Your task to perform on an android device: clear all cookies in the chrome app Image 0: 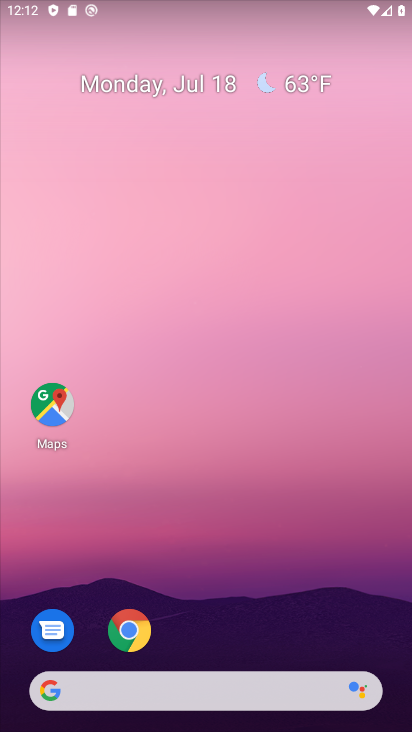
Step 0: drag from (174, 657) to (167, 0)
Your task to perform on an android device: clear all cookies in the chrome app Image 1: 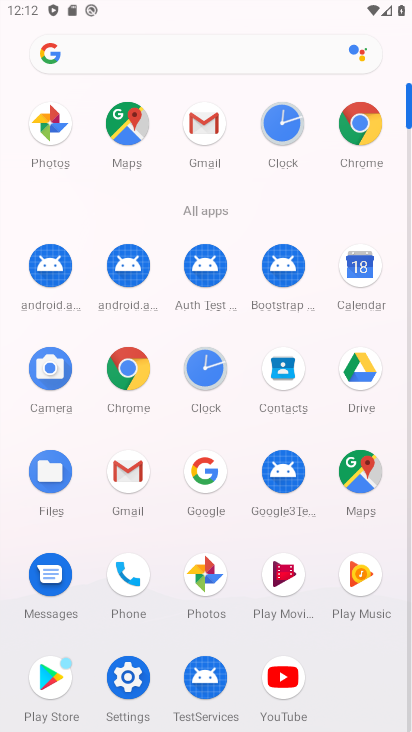
Step 1: click (133, 365)
Your task to perform on an android device: clear all cookies in the chrome app Image 2: 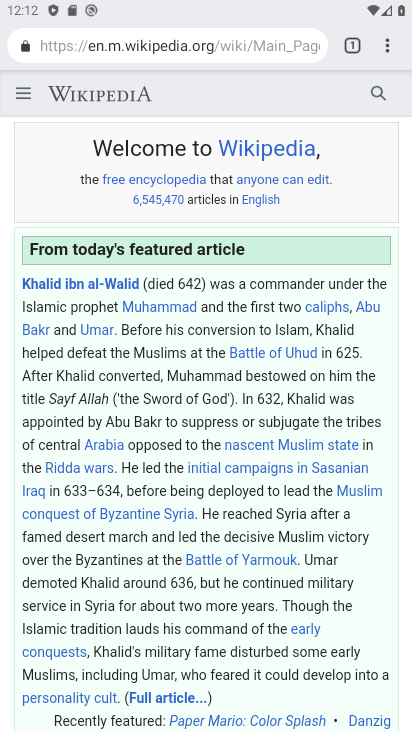
Step 2: click (393, 54)
Your task to perform on an android device: clear all cookies in the chrome app Image 3: 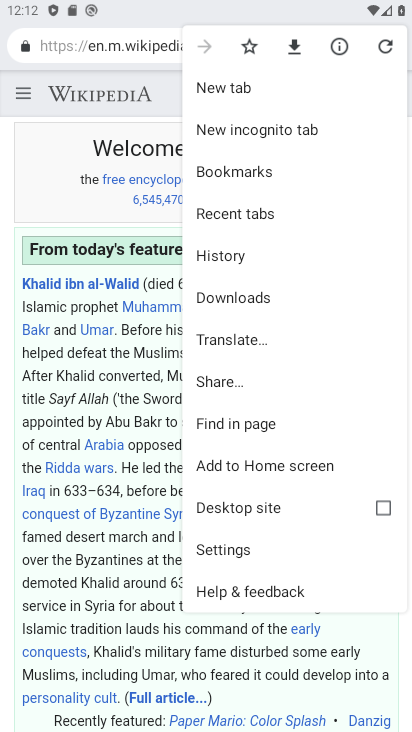
Step 3: click (233, 250)
Your task to perform on an android device: clear all cookies in the chrome app Image 4: 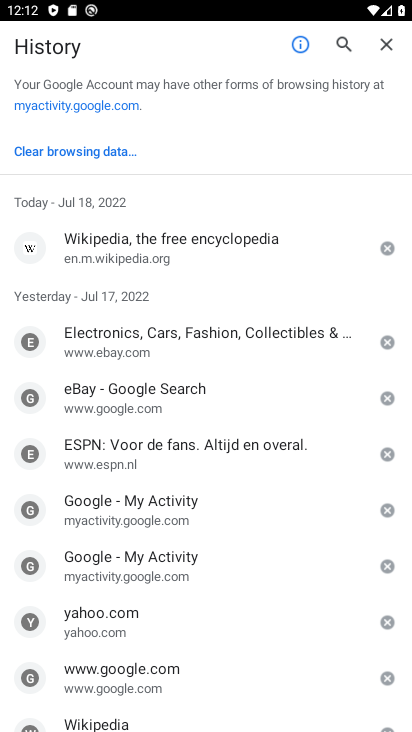
Step 4: click (51, 149)
Your task to perform on an android device: clear all cookies in the chrome app Image 5: 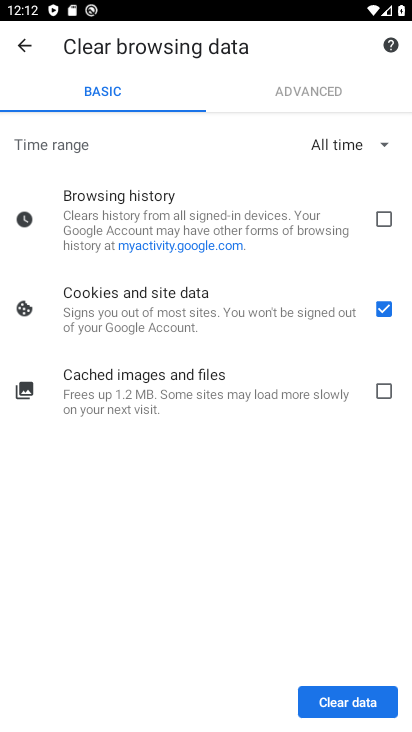
Step 5: click (371, 389)
Your task to perform on an android device: clear all cookies in the chrome app Image 6: 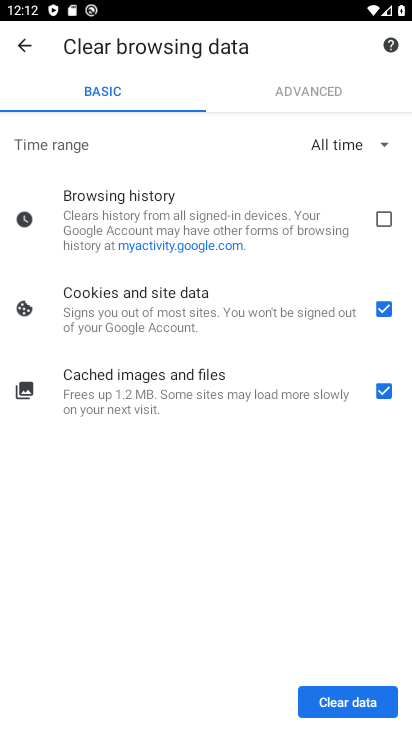
Step 6: click (371, 223)
Your task to perform on an android device: clear all cookies in the chrome app Image 7: 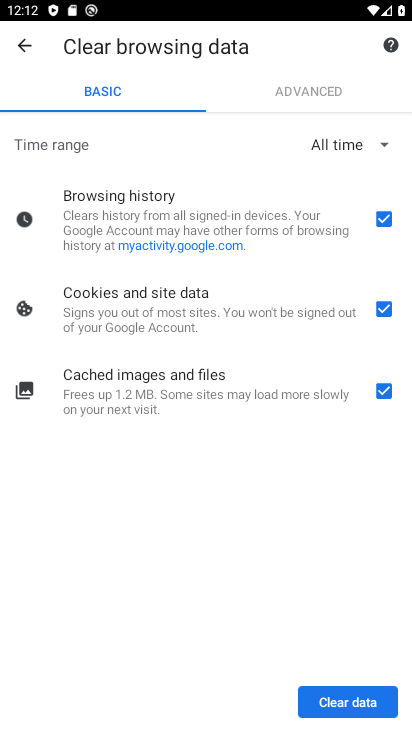
Step 7: click (365, 702)
Your task to perform on an android device: clear all cookies in the chrome app Image 8: 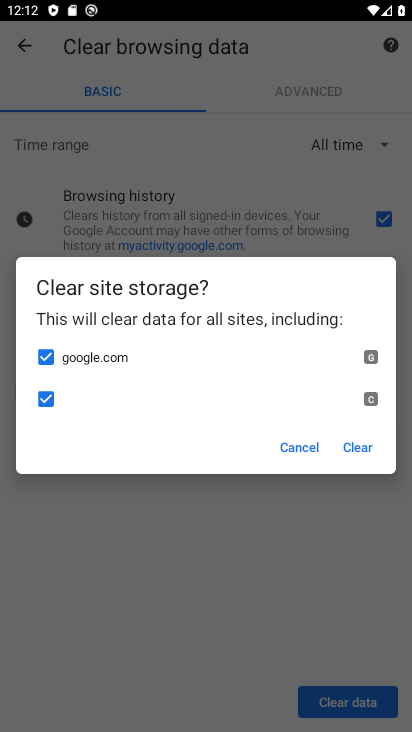
Step 8: click (365, 448)
Your task to perform on an android device: clear all cookies in the chrome app Image 9: 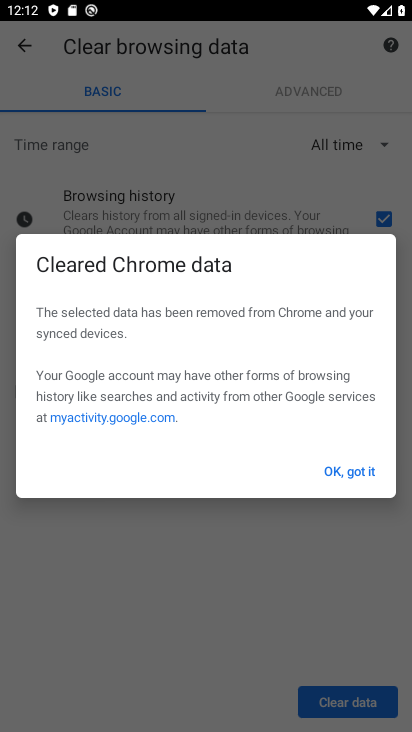
Step 9: task complete